Your task to perform on an android device: Go to display settings Image 0: 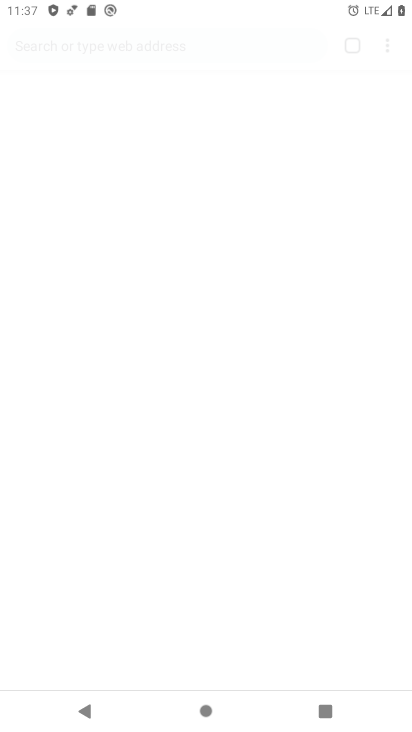
Step 0: drag from (271, 688) to (245, 210)
Your task to perform on an android device: Go to display settings Image 1: 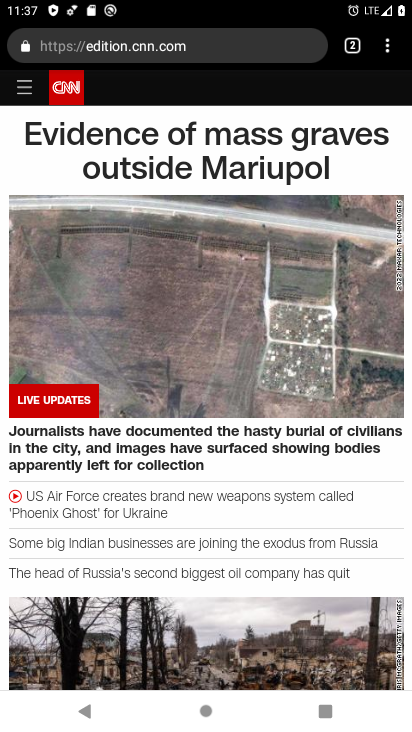
Step 1: press home button
Your task to perform on an android device: Go to display settings Image 2: 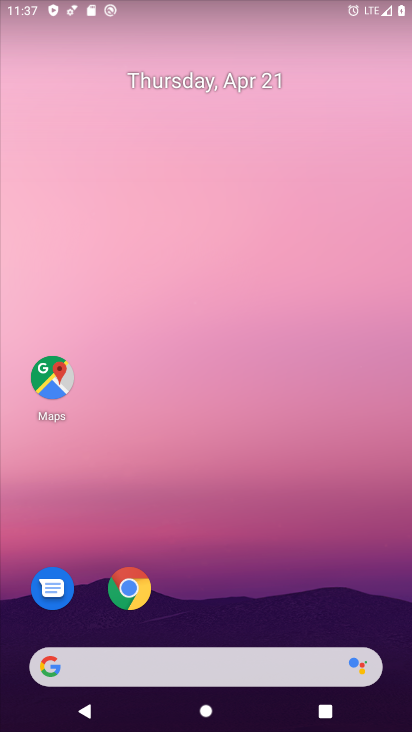
Step 2: drag from (282, 595) to (213, 307)
Your task to perform on an android device: Go to display settings Image 3: 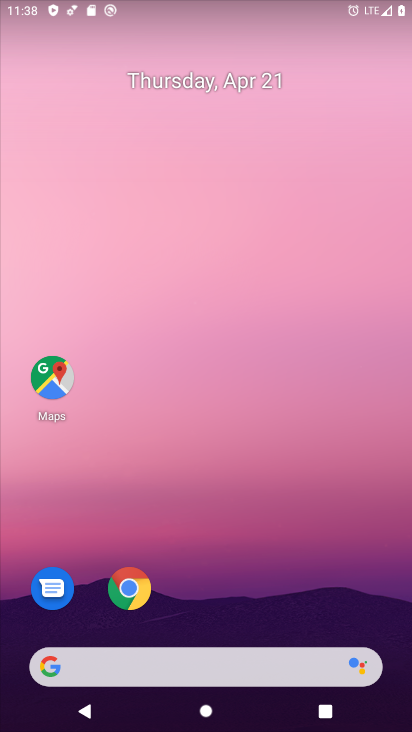
Step 3: drag from (225, 626) to (222, 266)
Your task to perform on an android device: Go to display settings Image 4: 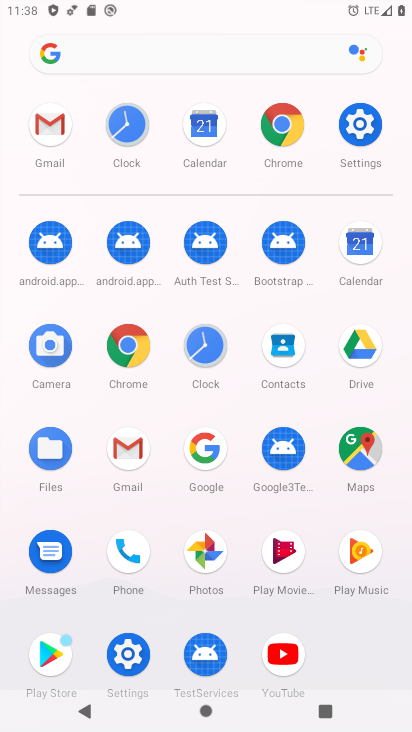
Step 4: click (366, 131)
Your task to perform on an android device: Go to display settings Image 5: 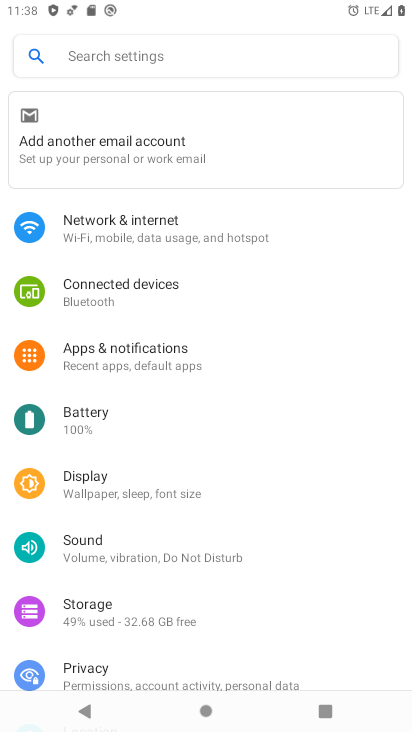
Step 5: click (84, 474)
Your task to perform on an android device: Go to display settings Image 6: 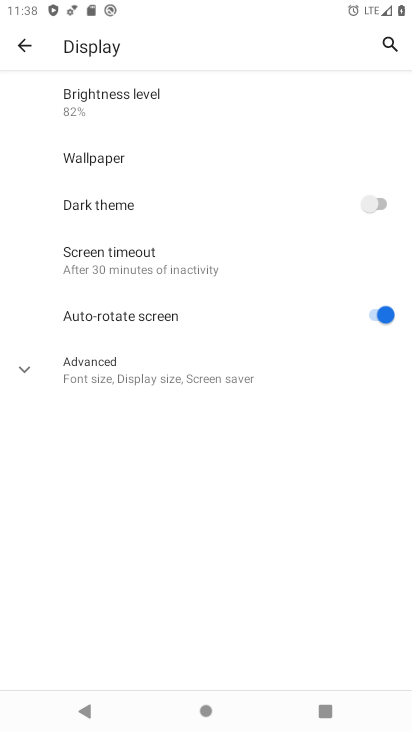
Step 6: click (63, 374)
Your task to perform on an android device: Go to display settings Image 7: 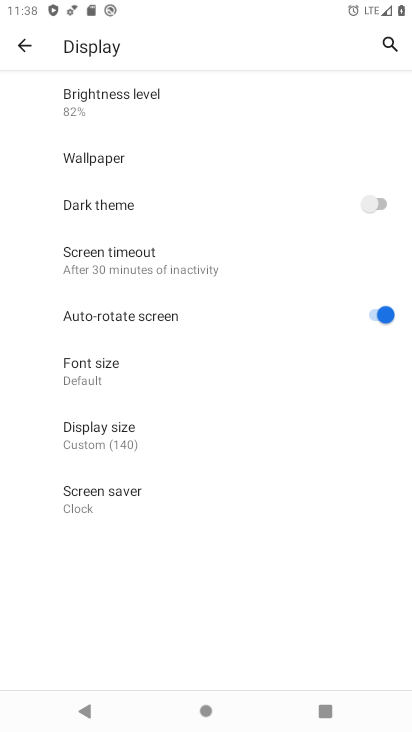
Step 7: task complete